Your task to perform on an android device: What's the weather? Image 0: 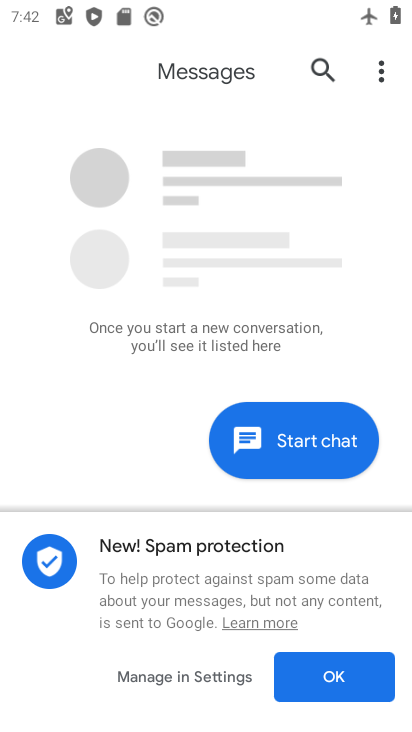
Step 0: press home button
Your task to perform on an android device: What's the weather? Image 1: 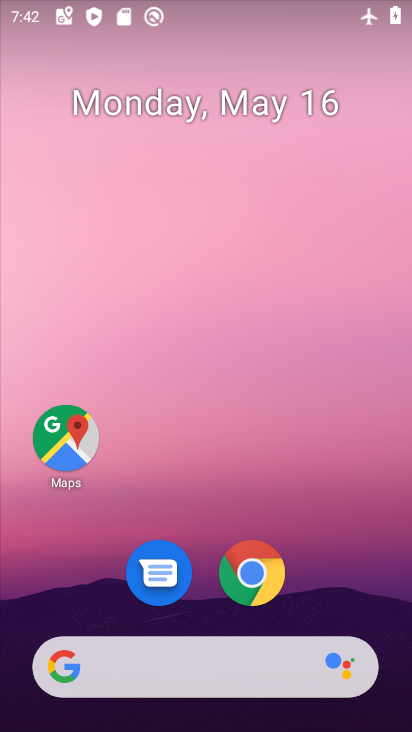
Step 1: click (56, 673)
Your task to perform on an android device: What's the weather? Image 2: 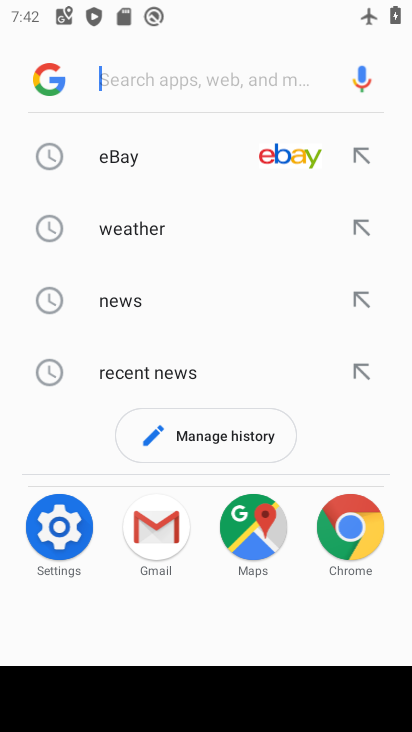
Step 2: click (46, 82)
Your task to perform on an android device: What's the weather? Image 3: 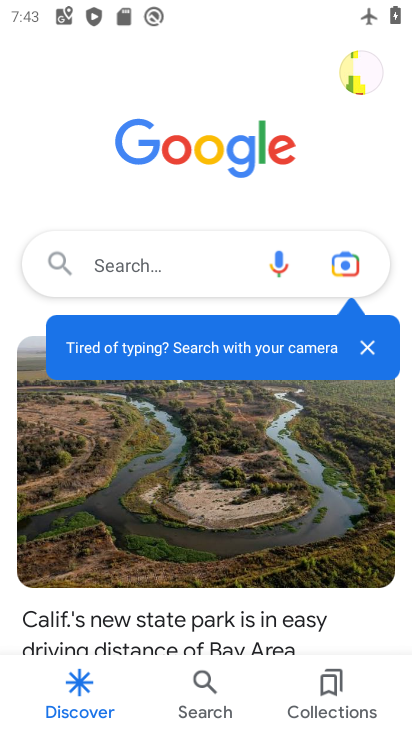
Step 3: click (358, 351)
Your task to perform on an android device: What's the weather? Image 4: 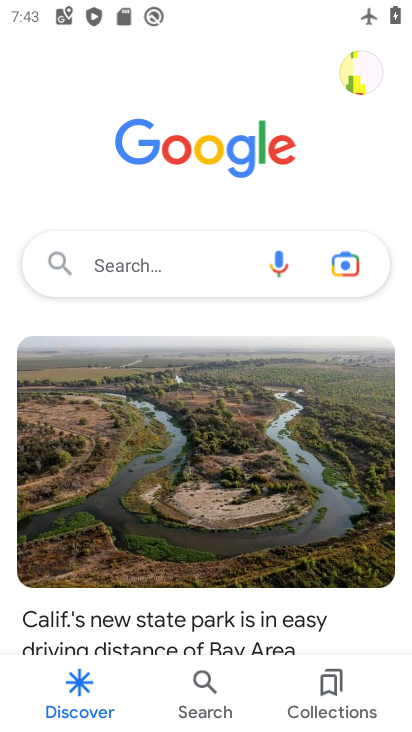
Step 4: task complete